Your task to perform on an android device: toggle location history Image 0: 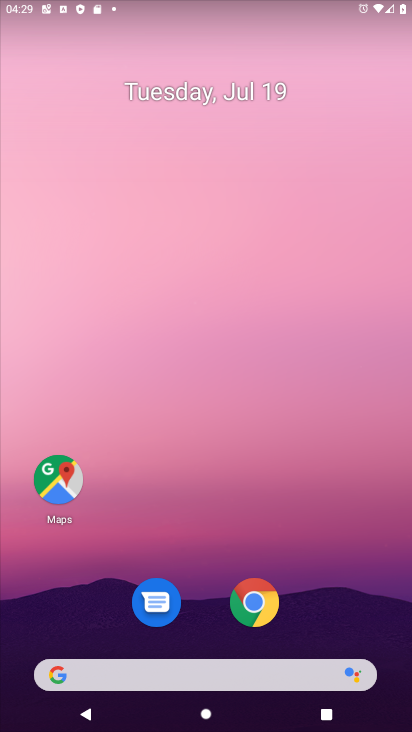
Step 0: drag from (208, 640) to (163, 214)
Your task to perform on an android device: toggle location history Image 1: 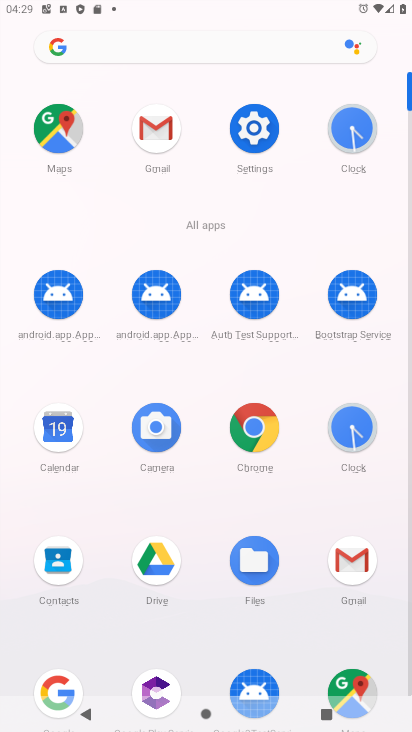
Step 1: click (253, 143)
Your task to perform on an android device: toggle location history Image 2: 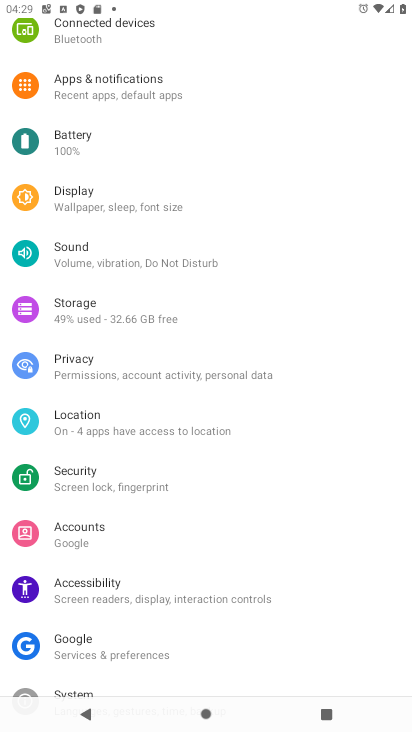
Step 2: click (104, 427)
Your task to perform on an android device: toggle location history Image 3: 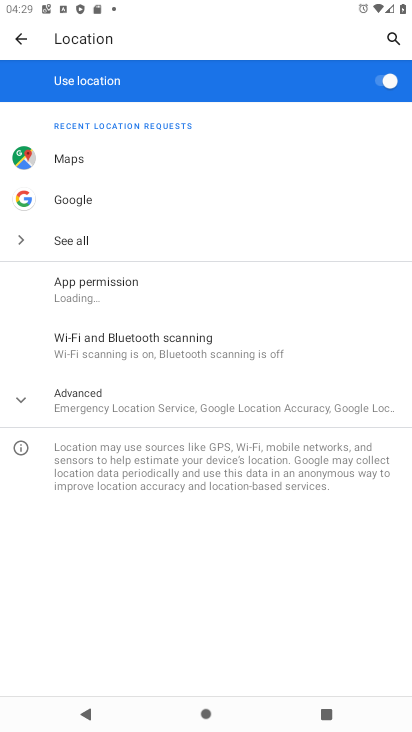
Step 3: click (137, 411)
Your task to perform on an android device: toggle location history Image 4: 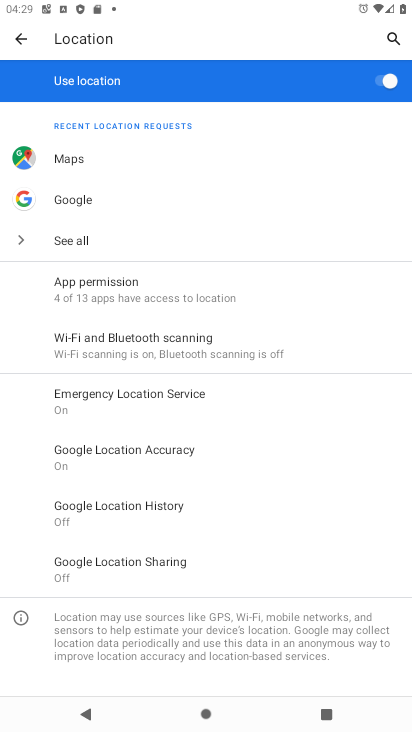
Step 4: click (116, 497)
Your task to perform on an android device: toggle location history Image 5: 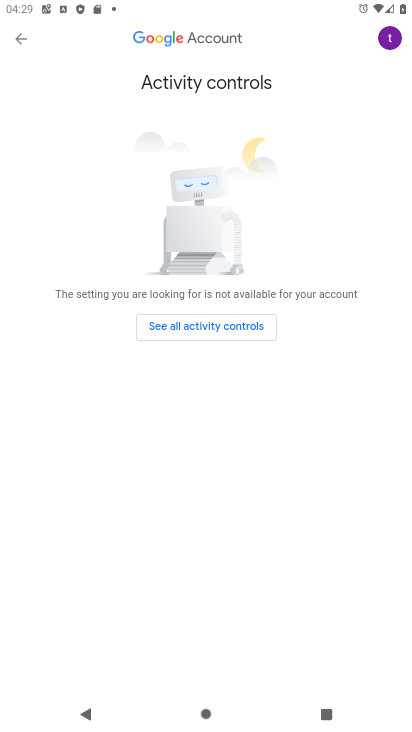
Step 5: task complete